Your task to perform on an android device: visit the assistant section in the google photos Image 0: 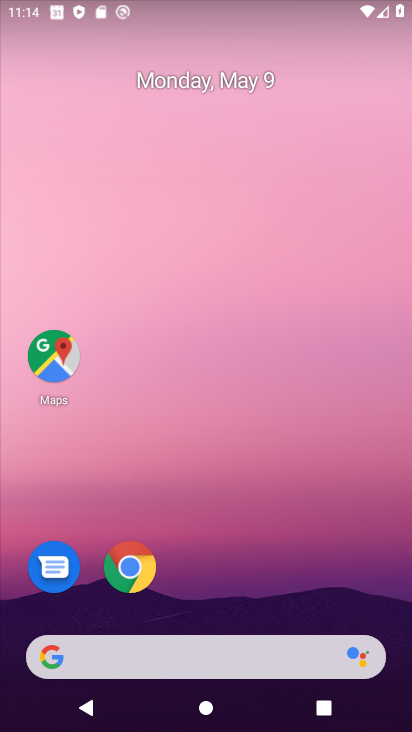
Step 0: drag from (394, 621) to (290, 85)
Your task to perform on an android device: visit the assistant section in the google photos Image 1: 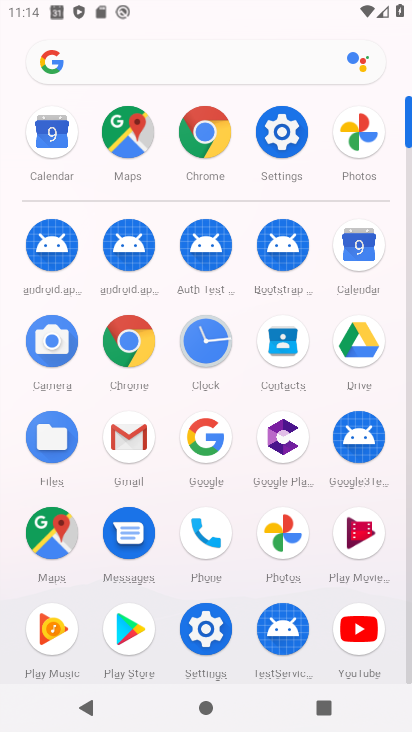
Step 1: click (290, 536)
Your task to perform on an android device: visit the assistant section in the google photos Image 2: 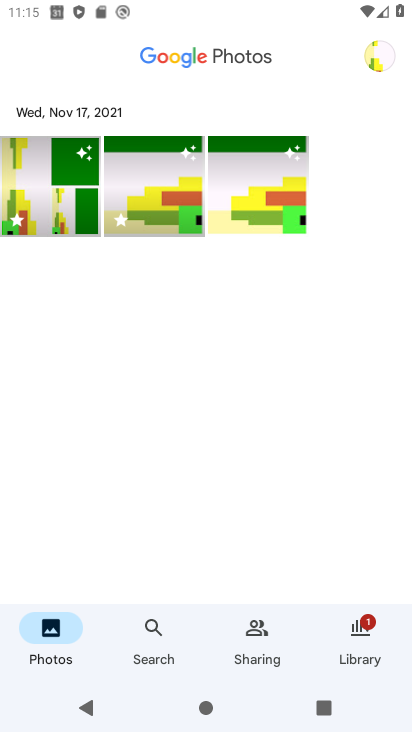
Step 2: task complete